Your task to perform on an android device: Open eBay Image 0: 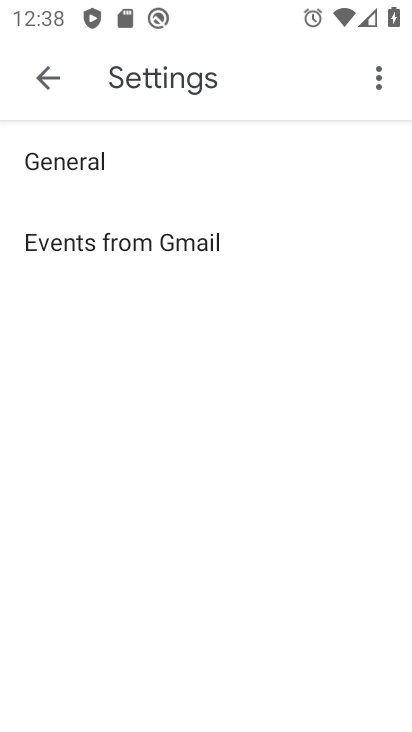
Step 0: press back button
Your task to perform on an android device: Open eBay Image 1: 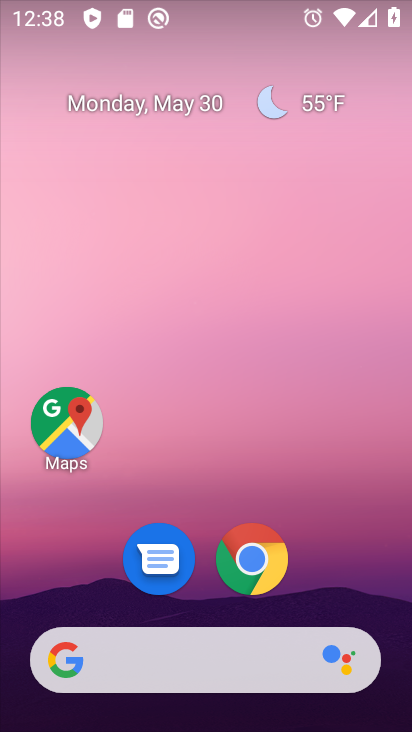
Step 1: click (262, 570)
Your task to perform on an android device: Open eBay Image 2: 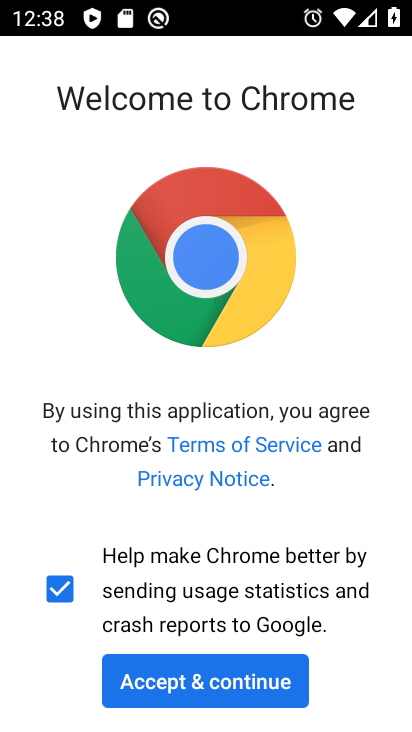
Step 2: click (173, 687)
Your task to perform on an android device: Open eBay Image 3: 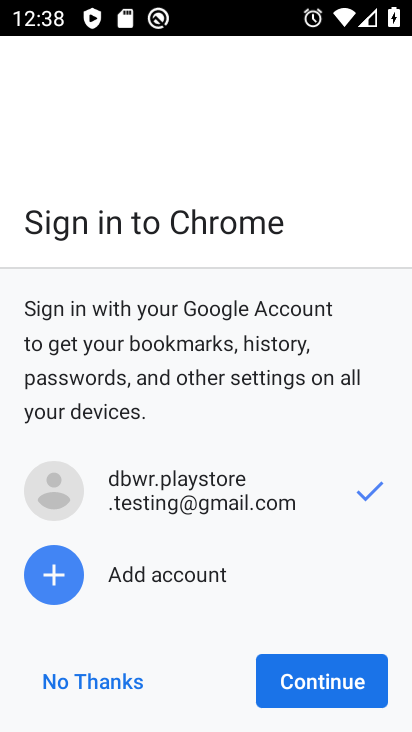
Step 3: click (308, 687)
Your task to perform on an android device: Open eBay Image 4: 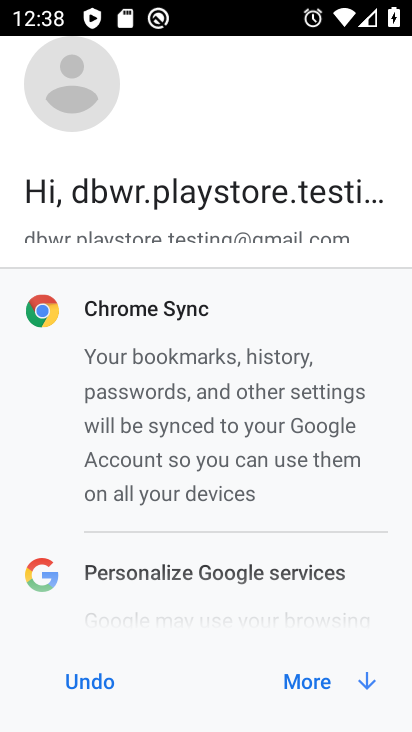
Step 4: click (318, 672)
Your task to perform on an android device: Open eBay Image 5: 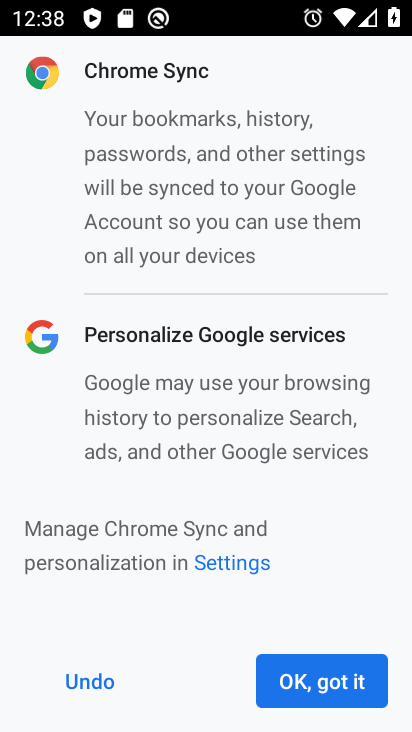
Step 5: click (320, 671)
Your task to perform on an android device: Open eBay Image 6: 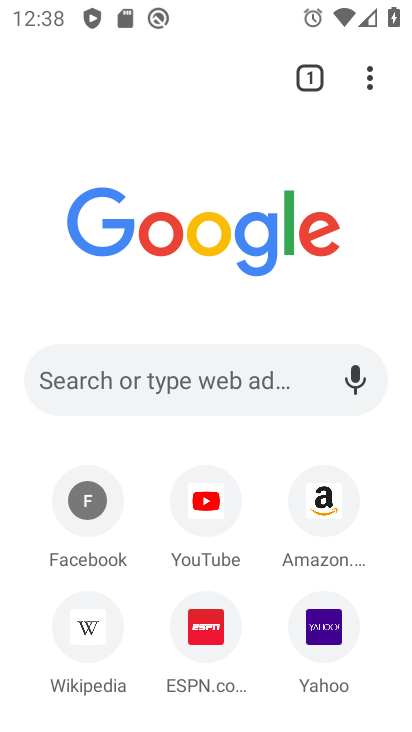
Step 6: click (115, 362)
Your task to perform on an android device: Open eBay Image 7: 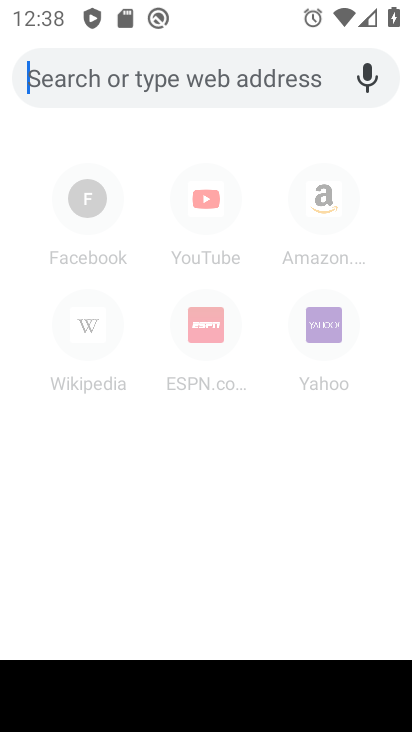
Step 7: type "ebay"
Your task to perform on an android device: Open eBay Image 8: 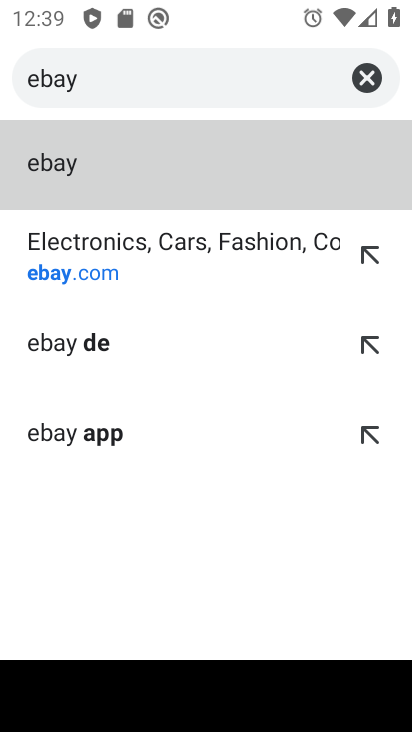
Step 8: click (48, 271)
Your task to perform on an android device: Open eBay Image 9: 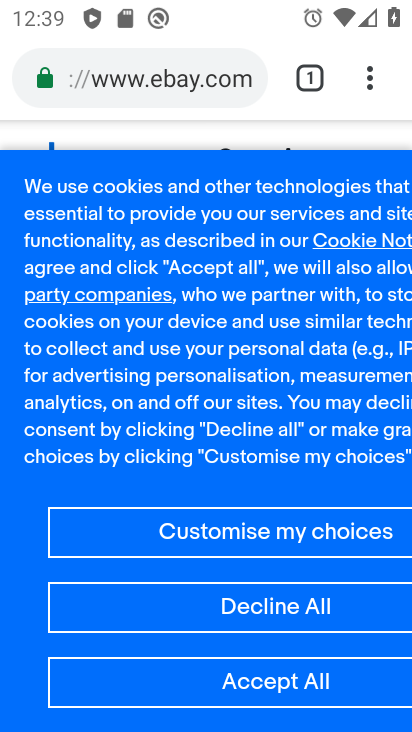
Step 9: task complete